Your task to perform on an android device: What's the weather like in Seoul? Image 0: 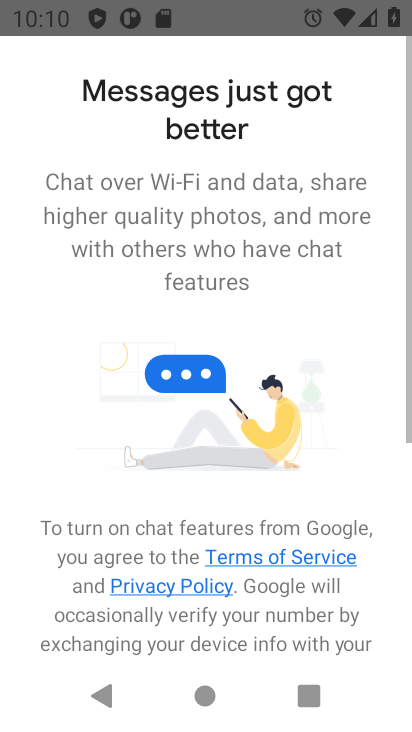
Step 0: press home button
Your task to perform on an android device: What's the weather like in Seoul? Image 1: 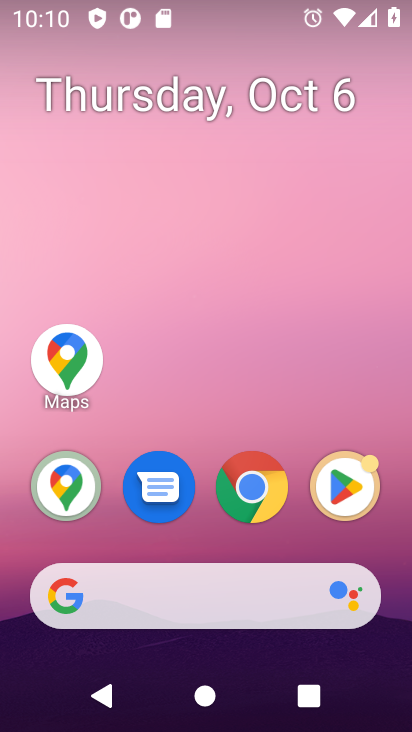
Step 1: drag from (120, 345) to (50, 178)
Your task to perform on an android device: What's the weather like in Seoul? Image 2: 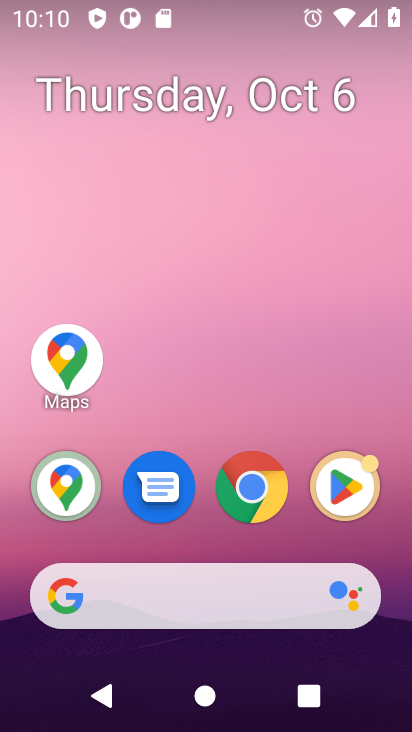
Step 2: drag from (212, 499) to (214, 75)
Your task to perform on an android device: What's the weather like in Seoul? Image 3: 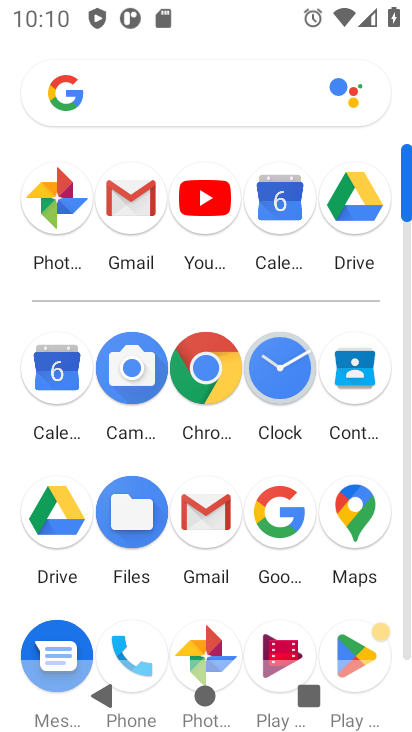
Step 3: click (203, 366)
Your task to perform on an android device: What's the weather like in Seoul? Image 4: 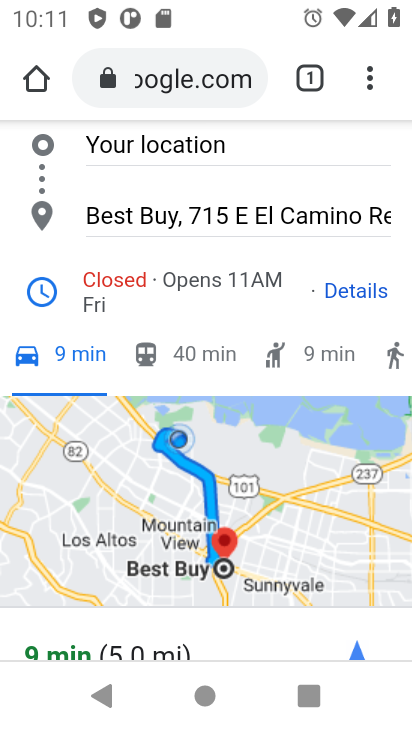
Step 4: click (218, 80)
Your task to perform on an android device: What's the weather like in Seoul? Image 5: 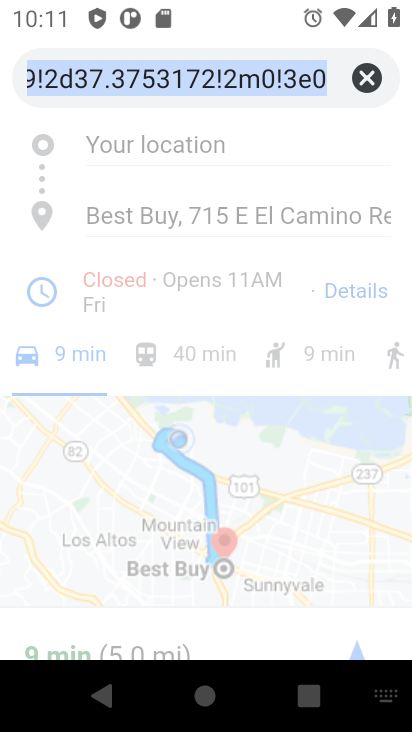
Step 5: click (366, 74)
Your task to perform on an android device: What's the weather like in Seoul? Image 6: 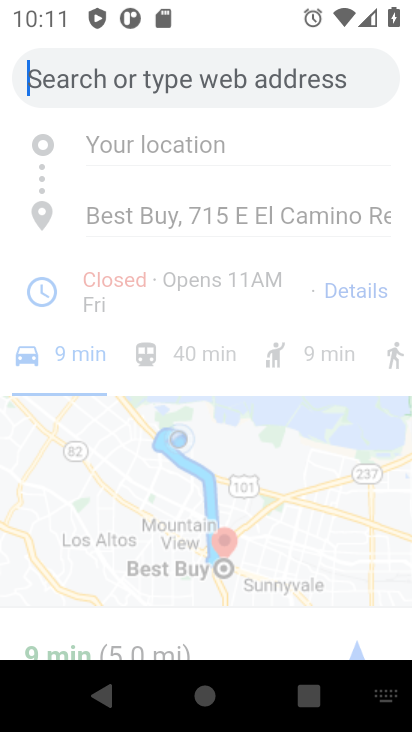
Step 6: type "What's the weather like in Seoul?"
Your task to perform on an android device: What's the weather like in Seoul? Image 7: 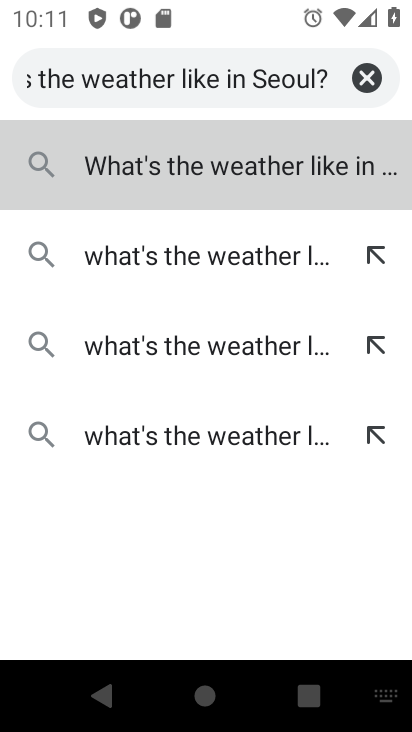
Step 7: press enter
Your task to perform on an android device: What's the weather like in Seoul? Image 8: 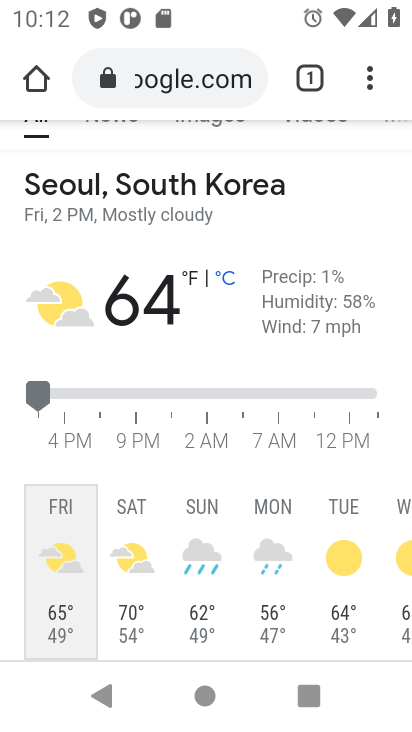
Step 8: task complete